Your task to perform on an android device: open app "Google Chrome" Image 0: 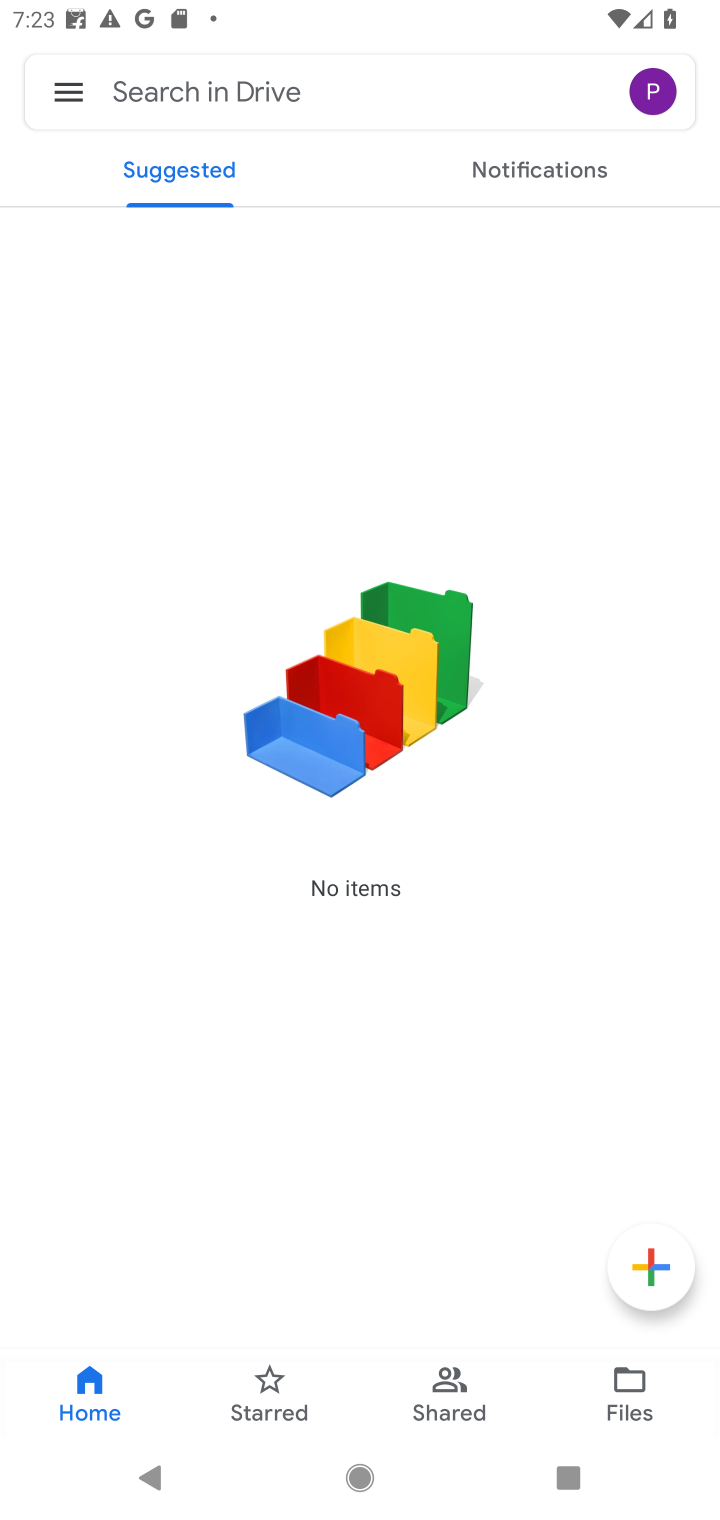
Step 0: press home button
Your task to perform on an android device: open app "Google Chrome" Image 1: 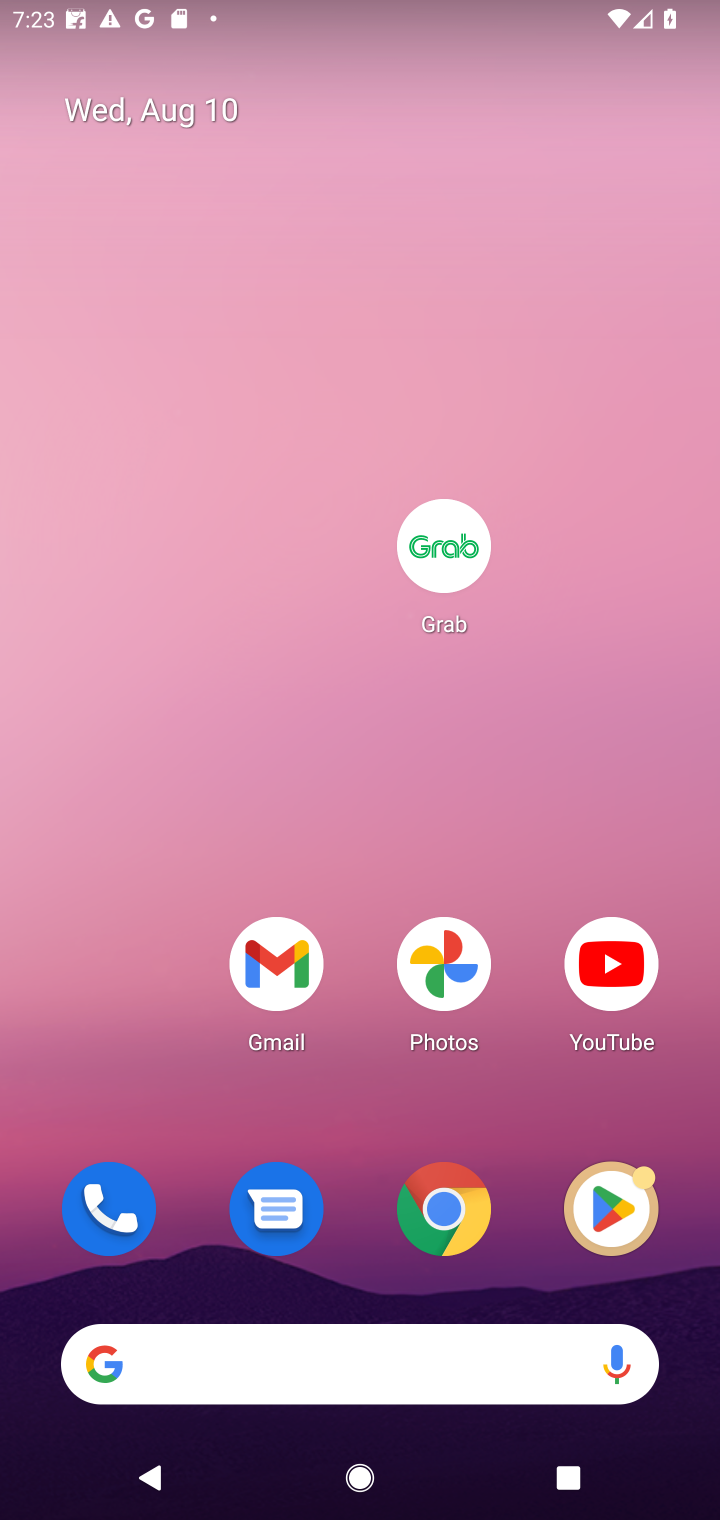
Step 1: drag from (353, 1293) to (340, 180)
Your task to perform on an android device: open app "Google Chrome" Image 2: 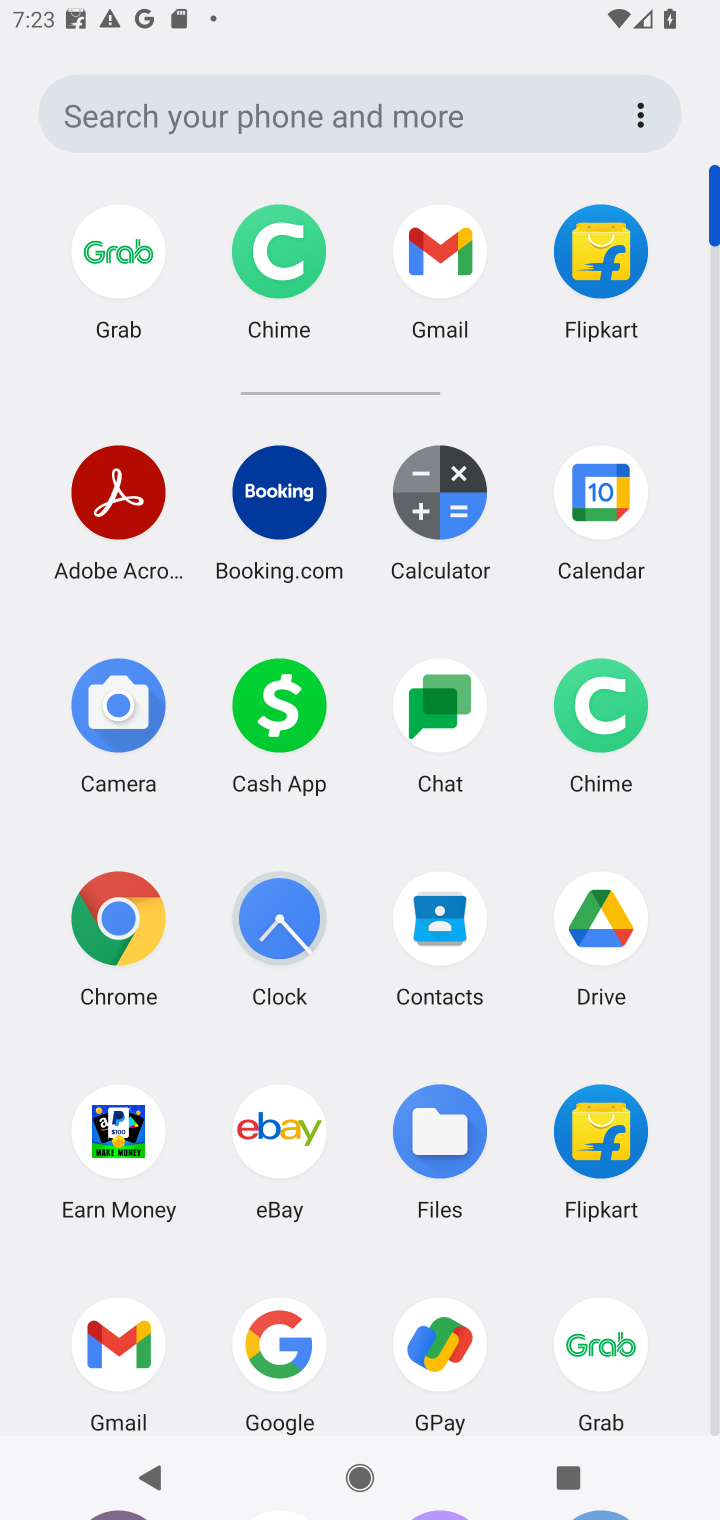
Step 2: click (123, 956)
Your task to perform on an android device: open app "Google Chrome" Image 3: 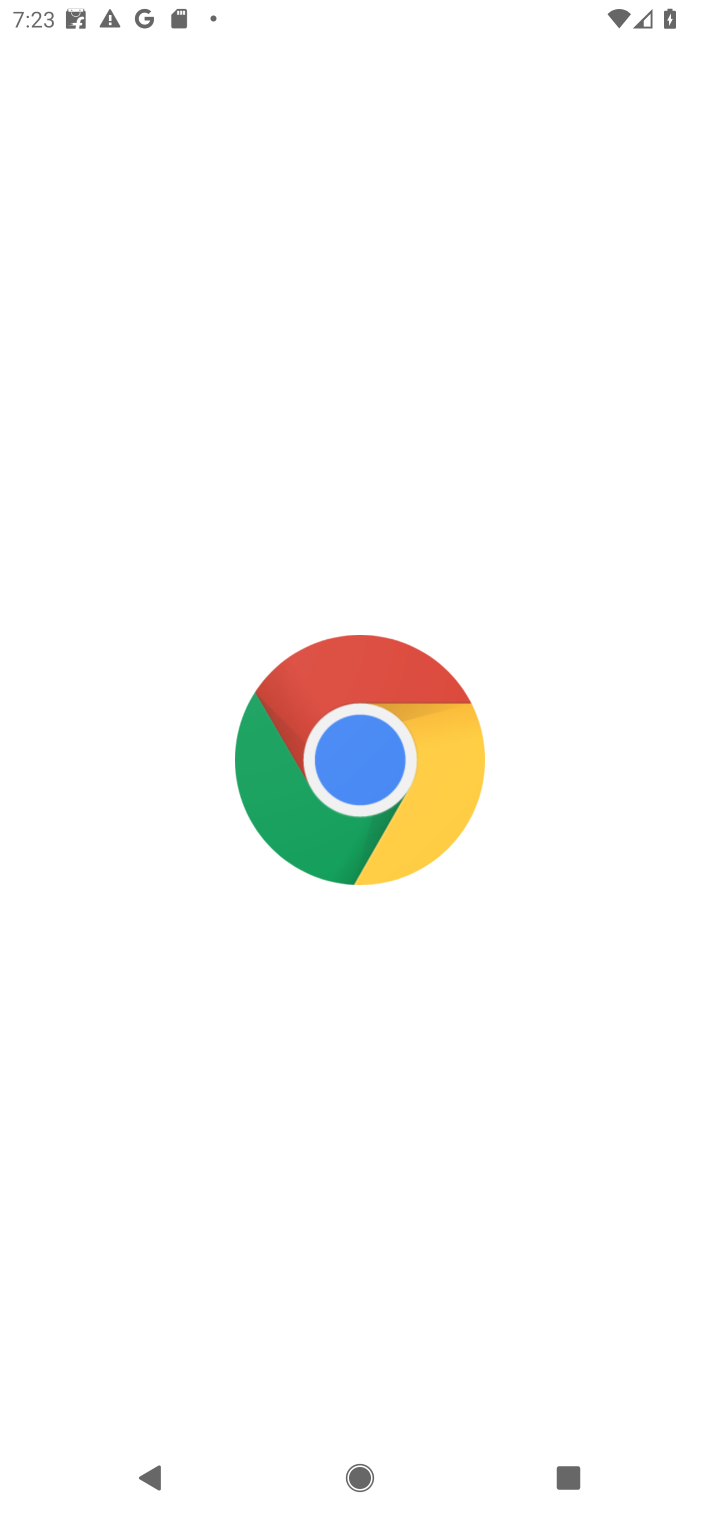
Step 3: task complete